Your task to perform on an android device: allow notifications from all sites in the chrome app Image 0: 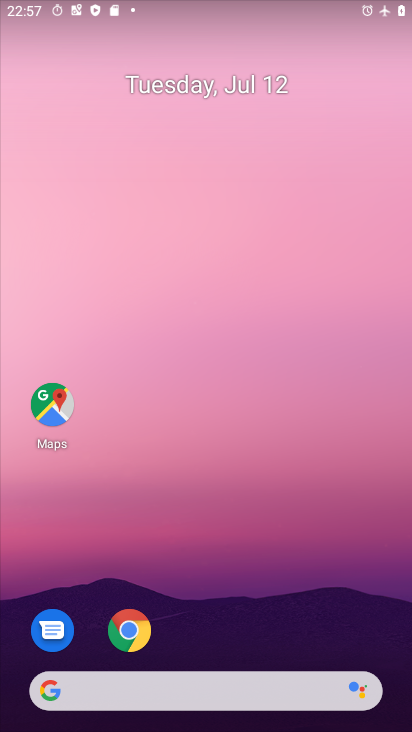
Step 0: click (134, 621)
Your task to perform on an android device: allow notifications from all sites in the chrome app Image 1: 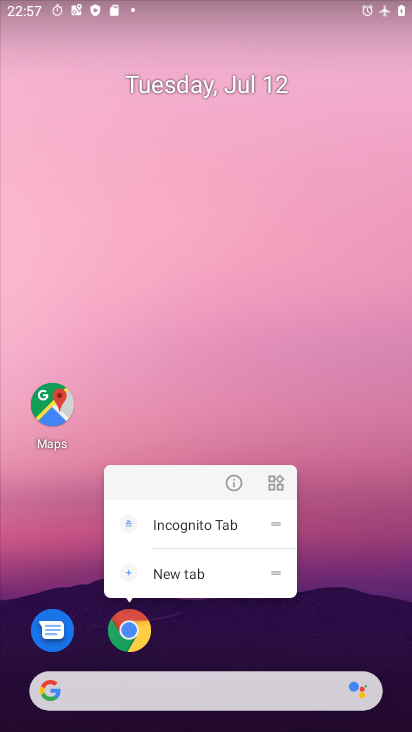
Step 1: click (134, 620)
Your task to perform on an android device: allow notifications from all sites in the chrome app Image 2: 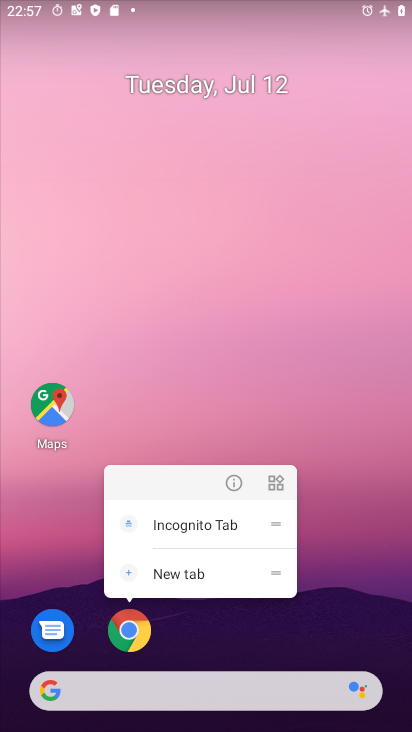
Step 2: click (131, 640)
Your task to perform on an android device: allow notifications from all sites in the chrome app Image 3: 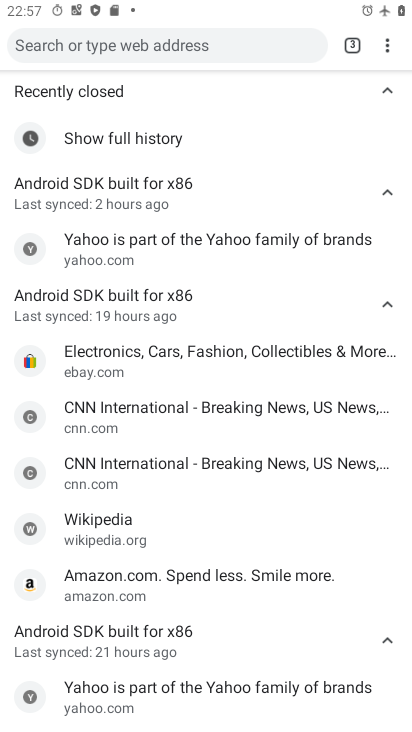
Step 3: drag from (384, 50) to (256, 382)
Your task to perform on an android device: allow notifications from all sites in the chrome app Image 4: 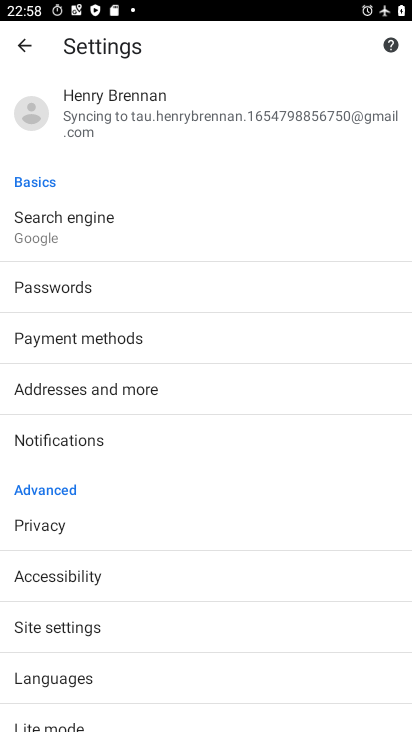
Step 4: click (65, 432)
Your task to perform on an android device: allow notifications from all sites in the chrome app Image 5: 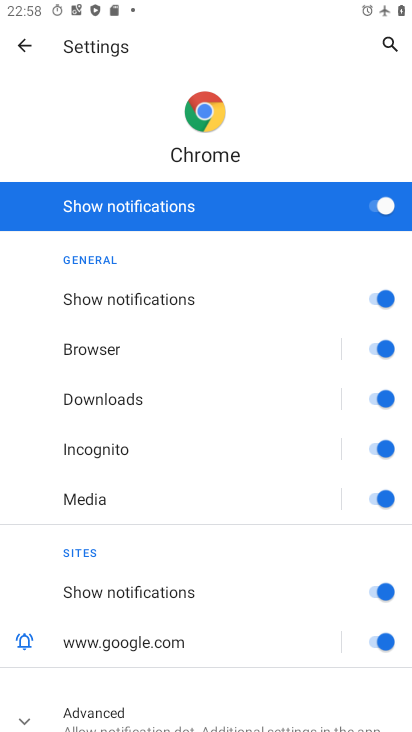
Step 5: task complete